Your task to perform on an android device: Search for vegetarian restaurants on Maps Image 0: 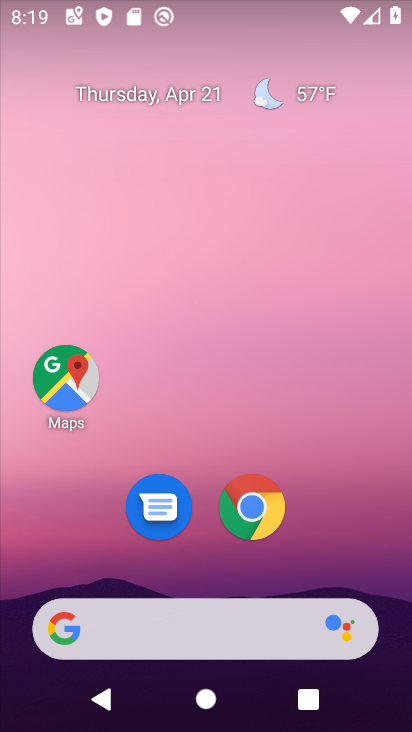
Step 0: click (67, 377)
Your task to perform on an android device: Search for vegetarian restaurants on Maps Image 1: 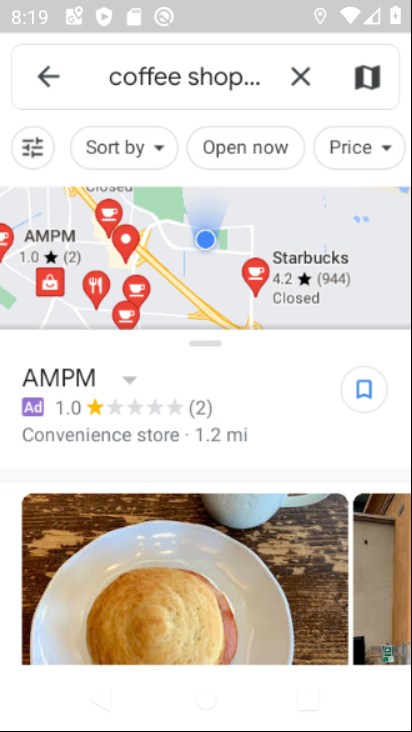
Step 1: click (302, 67)
Your task to perform on an android device: Search for vegetarian restaurants on Maps Image 2: 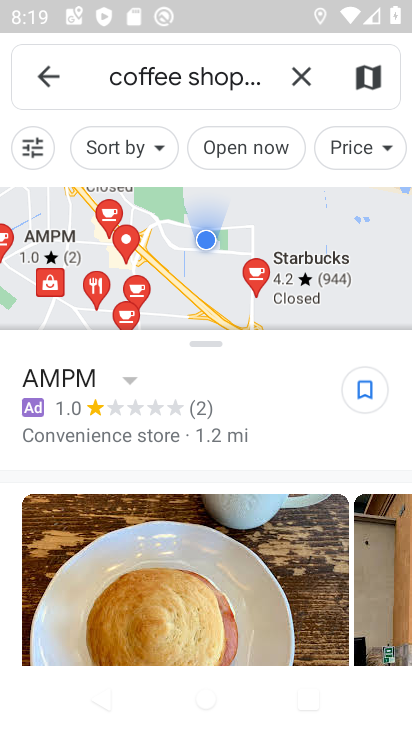
Step 2: click (305, 69)
Your task to perform on an android device: Search for vegetarian restaurants on Maps Image 3: 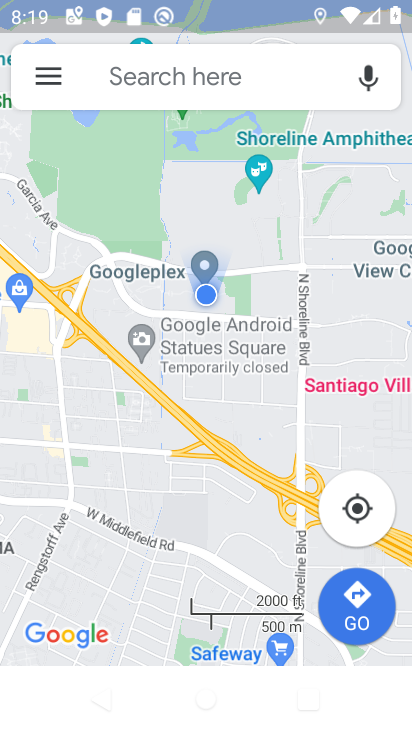
Step 3: click (265, 80)
Your task to perform on an android device: Search for vegetarian restaurants on Maps Image 4: 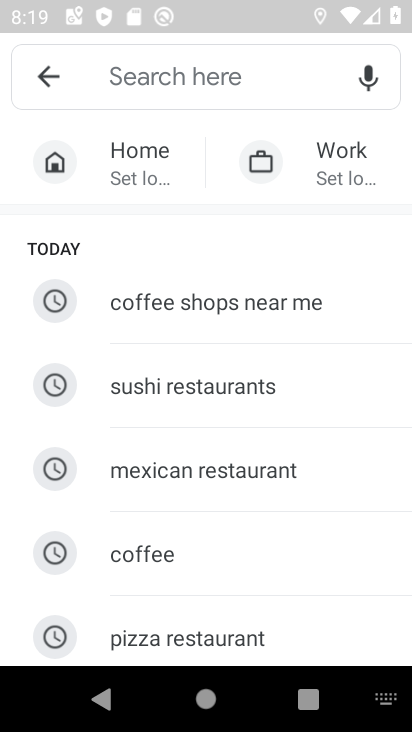
Step 4: type " vegetarian restaurants"
Your task to perform on an android device: Search for vegetarian restaurants on Maps Image 5: 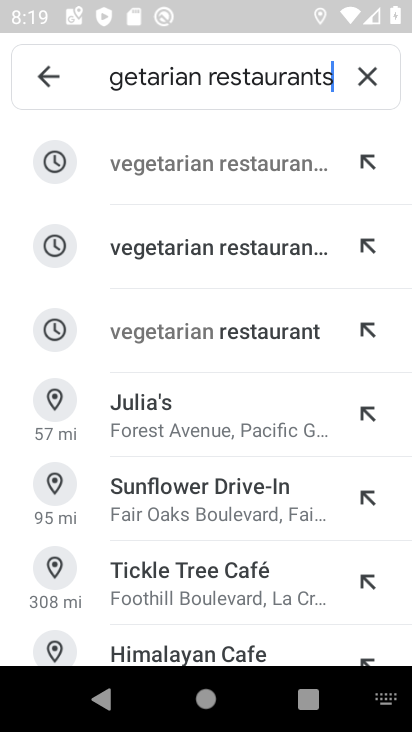
Step 5: click (215, 169)
Your task to perform on an android device: Search for vegetarian restaurants on Maps Image 6: 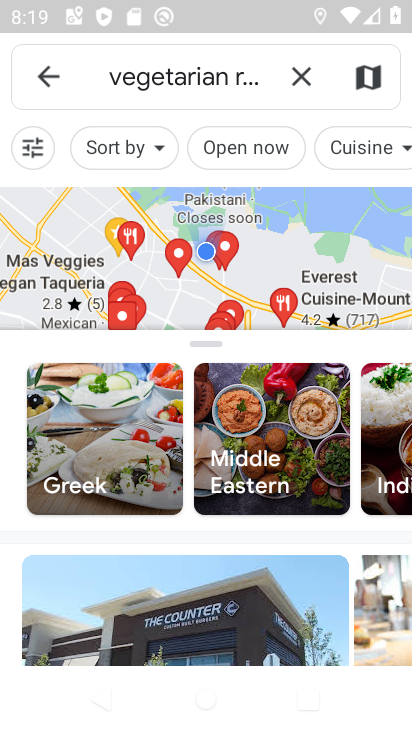
Step 6: task complete